Your task to perform on an android device: turn on javascript in the chrome app Image 0: 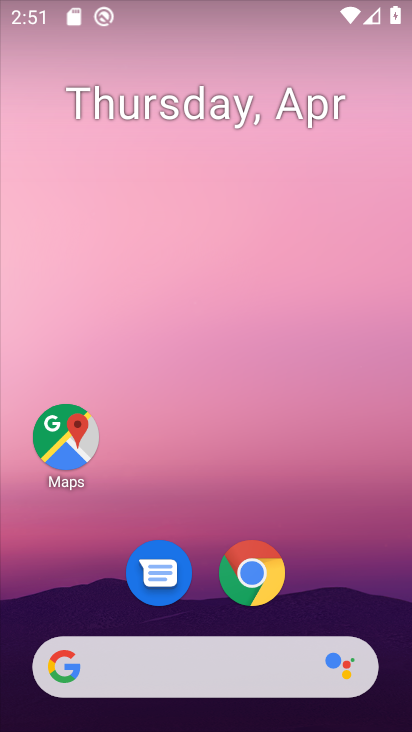
Step 0: drag from (342, 616) to (228, 133)
Your task to perform on an android device: turn on javascript in the chrome app Image 1: 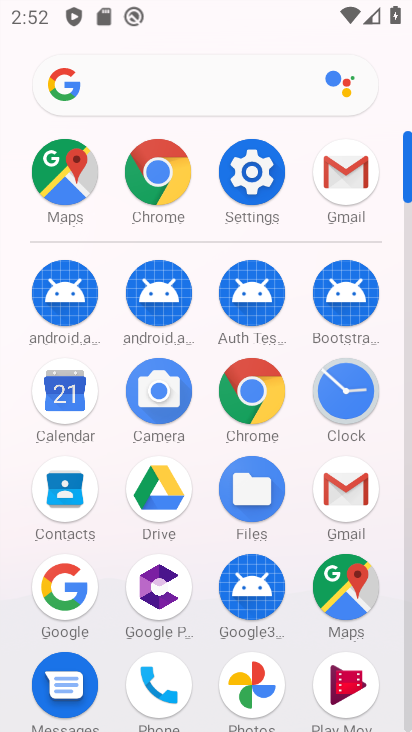
Step 1: click (258, 397)
Your task to perform on an android device: turn on javascript in the chrome app Image 2: 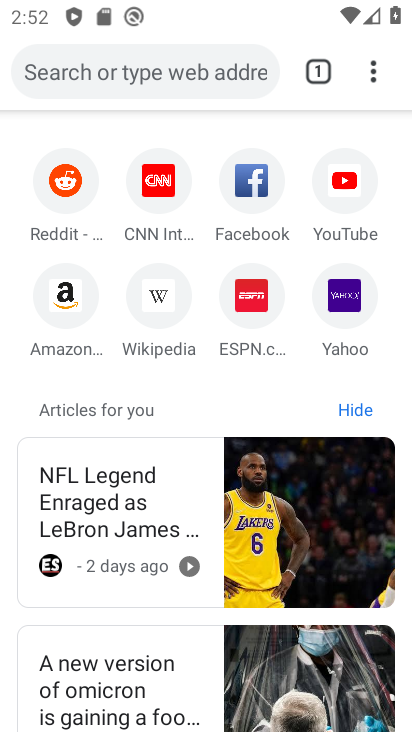
Step 2: click (372, 70)
Your task to perform on an android device: turn on javascript in the chrome app Image 3: 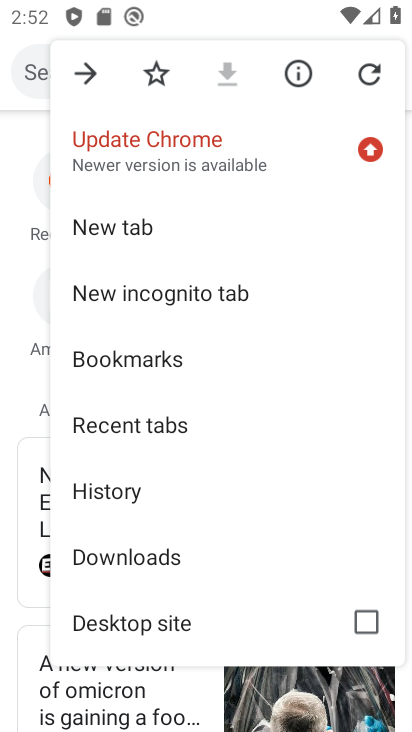
Step 3: drag from (184, 564) to (210, 204)
Your task to perform on an android device: turn on javascript in the chrome app Image 4: 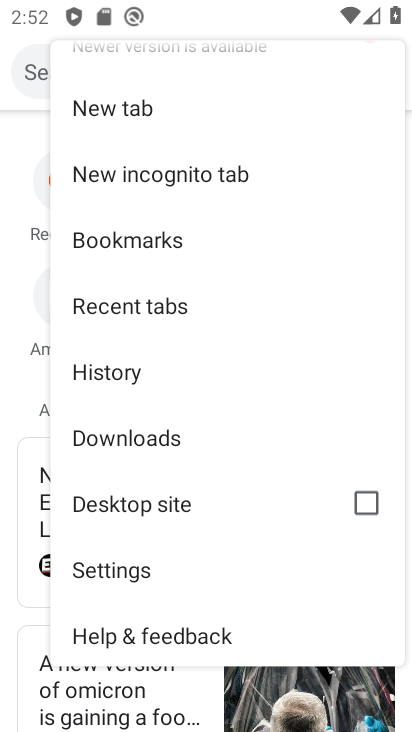
Step 4: click (129, 568)
Your task to perform on an android device: turn on javascript in the chrome app Image 5: 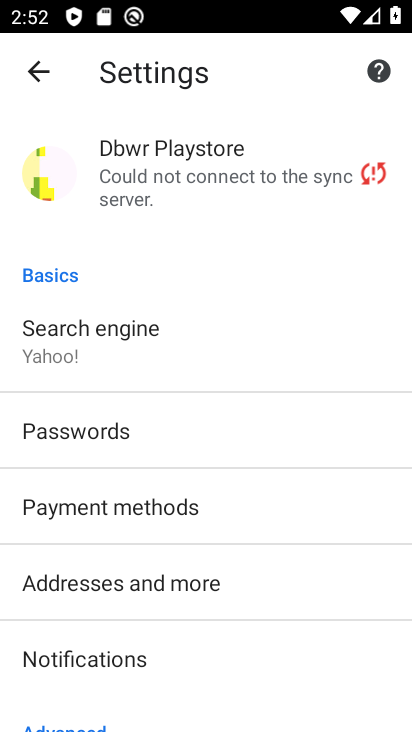
Step 5: drag from (193, 630) to (221, 154)
Your task to perform on an android device: turn on javascript in the chrome app Image 6: 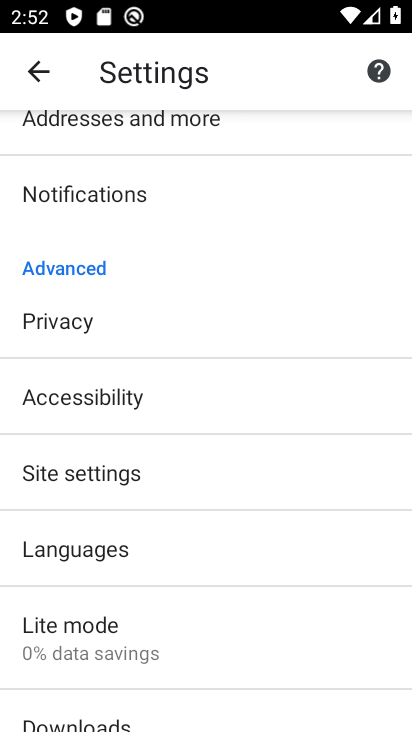
Step 6: click (178, 478)
Your task to perform on an android device: turn on javascript in the chrome app Image 7: 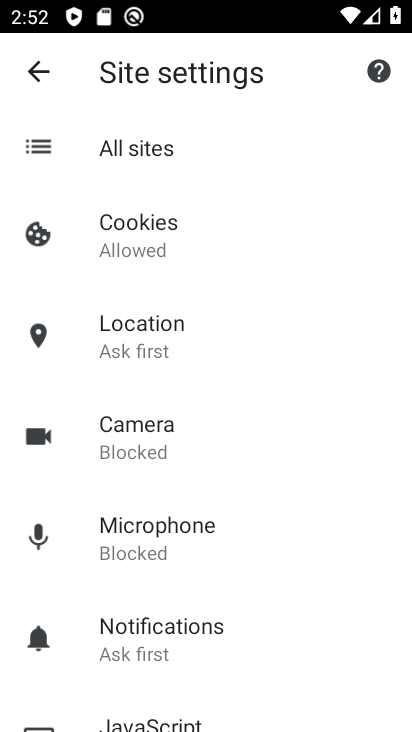
Step 7: drag from (222, 623) to (205, 277)
Your task to perform on an android device: turn on javascript in the chrome app Image 8: 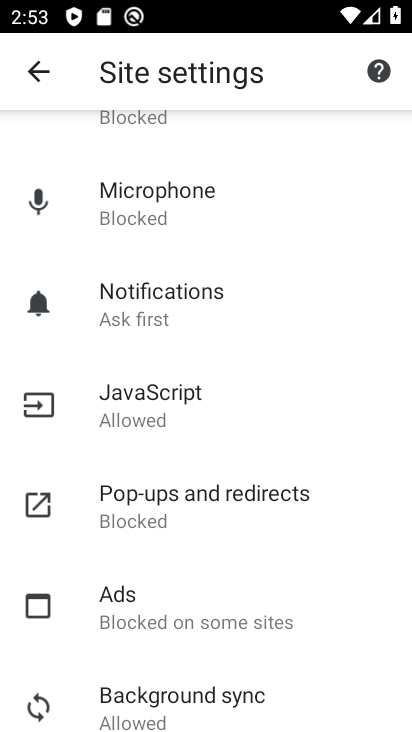
Step 8: click (214, 408)
Your task to perform on an android device: turn on javascript in the chrome app Image 9: 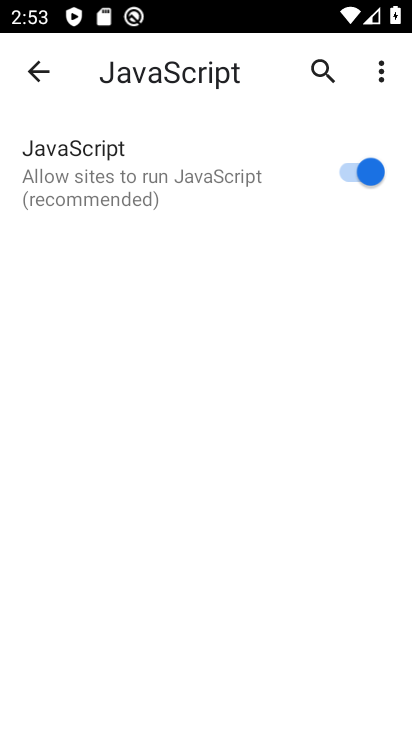
Step 9: task complete